Your task to perform on an android device: Clear the shopping cart on newegg. Search for "bose soundlink" on newegg, select the first entry, add it to the cart, then select checkout. Image 0: 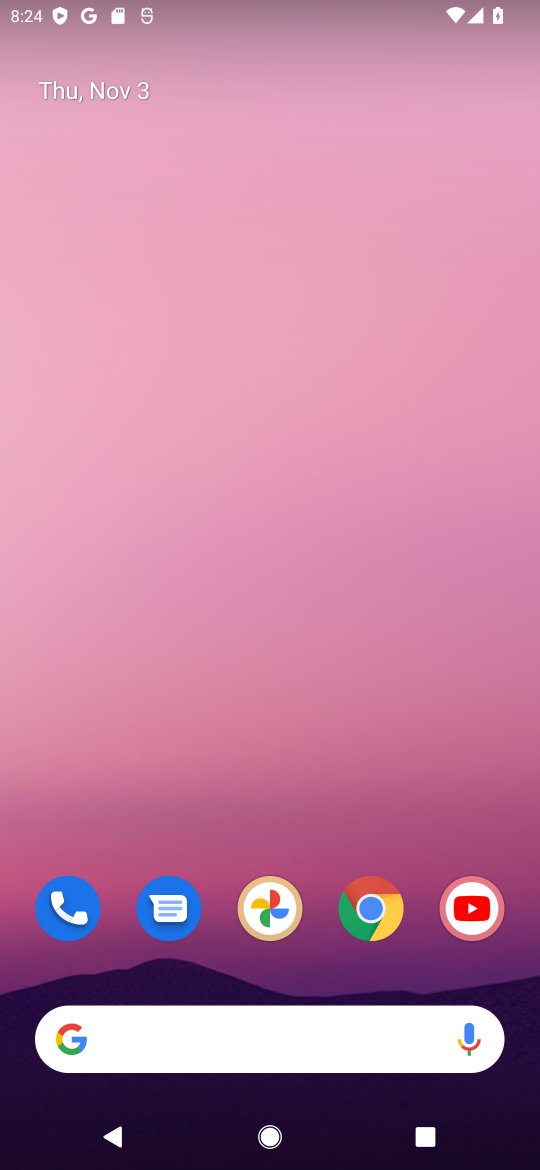
Step 0: click (382, 896)
Your task to perform on an android device: Clear the shopping cart on newegg. Search for "bose soundlink" on newegg, select the first entry, add it to the cart, then select checkout. Image 1: 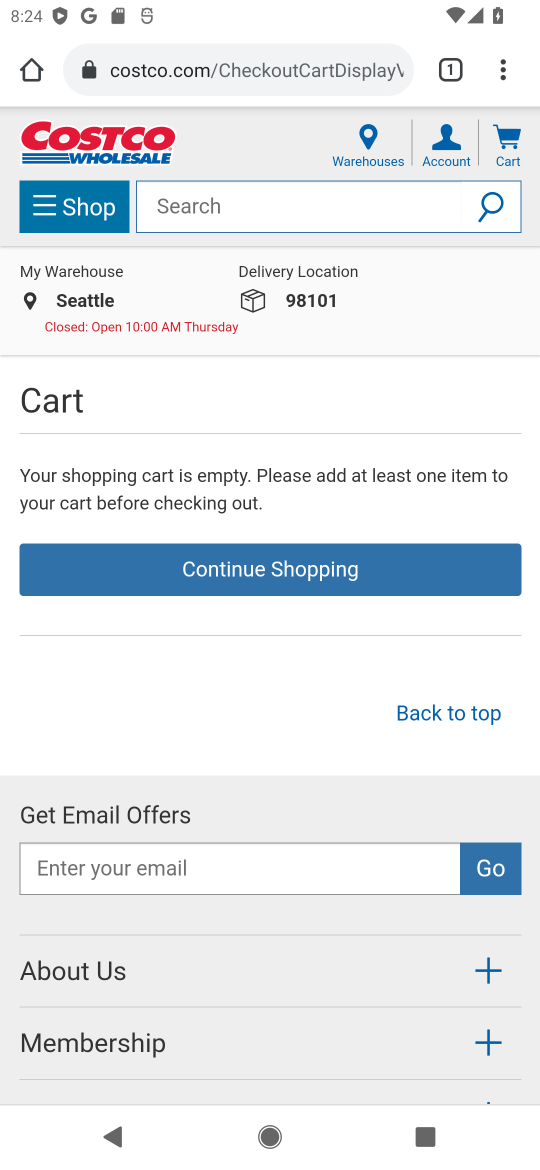
Step 1: click (27, 71)
Your task to perform on an android device: Clear the shopping cart on newegg. Search for "bose soundlink" on newegg, select the first entry, add it to the cart, then select checkout. Image 2: 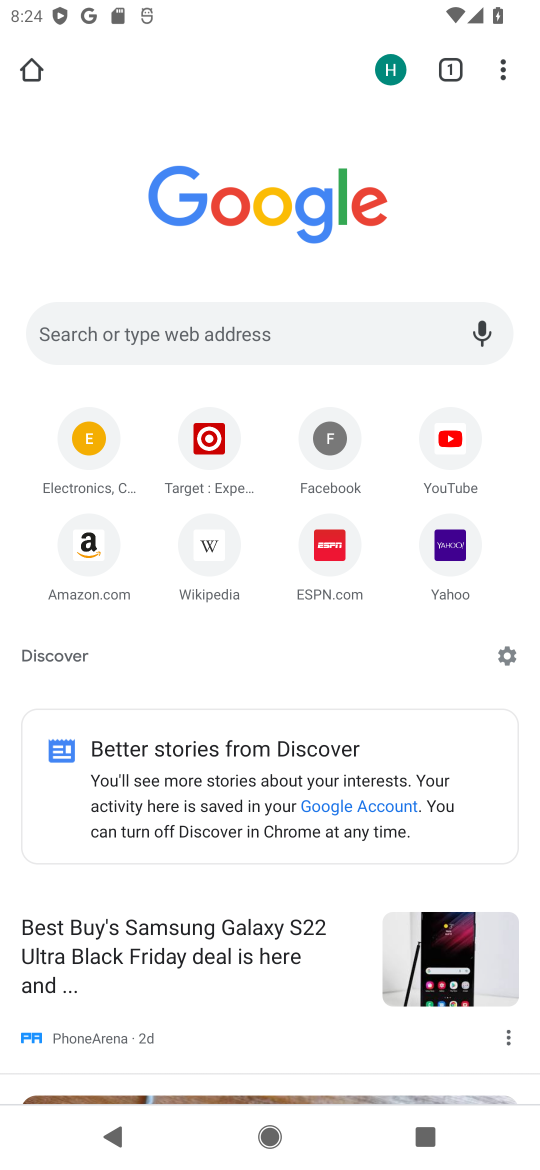
Step 2: click (233, 325)
Your task to perform on an android device: Clear the shopping cart on newegg. Search for "bose soundlink" on newegg, select the first entry, add it to the cart, then select checkout. Image 3: 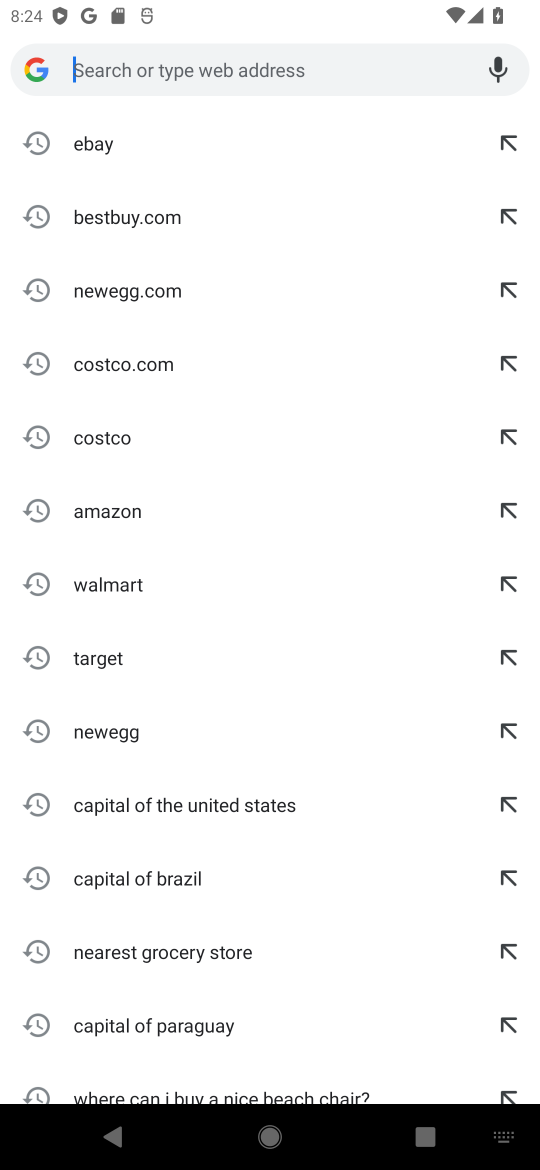
Step 3: click (159, 286)
Your task to perform on an android device: Clear the shopping cart on newegg. Search for "bose soundlink" on newegg, select the first entry, add it to the cart, then select checkout. Image 4: 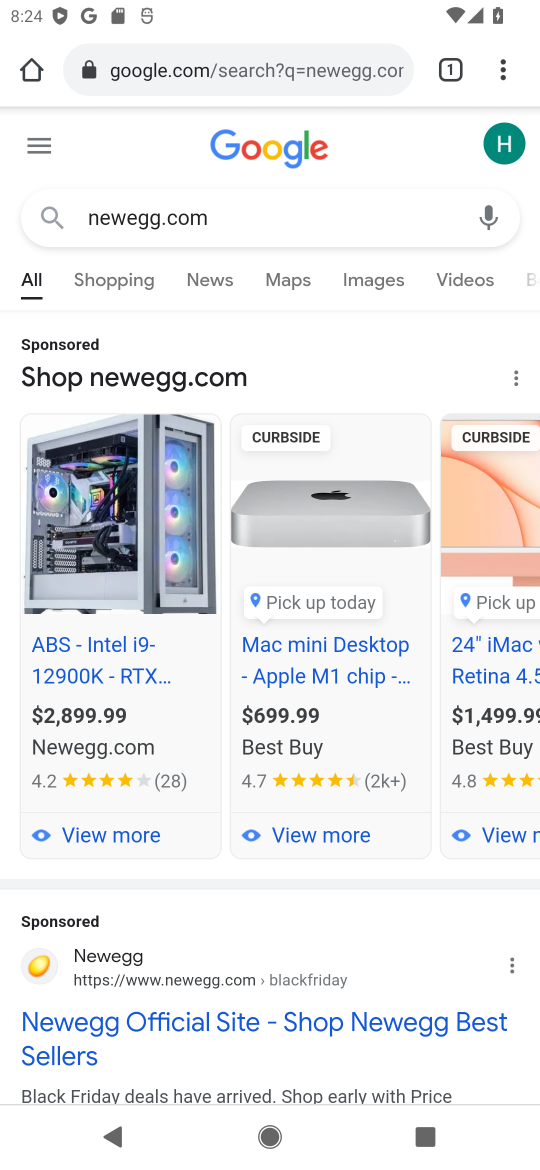
Step 4: click (210, 978)
Your task to perform on an android device: Clear the shopping cart on newegg. Search for "bose soundlink" on newegg, select the first entry, add it to the cart, then select checkout. Image 5: 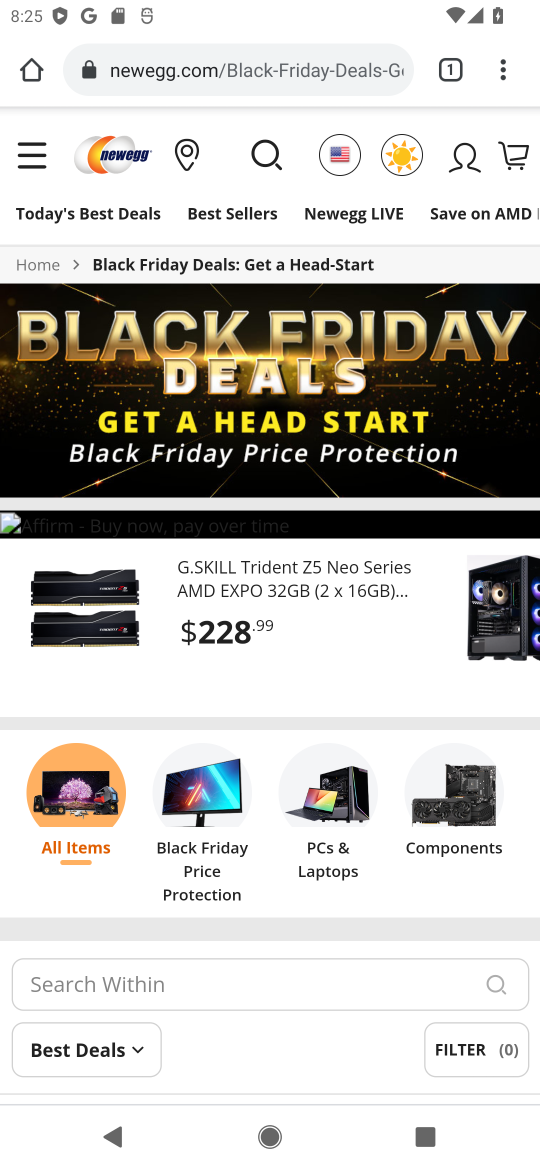
Step 5: click (511, 151)
Your task to perform on an android device: Clear the shopping cart on newegg. Search for "bose soundlink" on newegg, select the first entry, add it to the cart, then select checkout. Image 6: 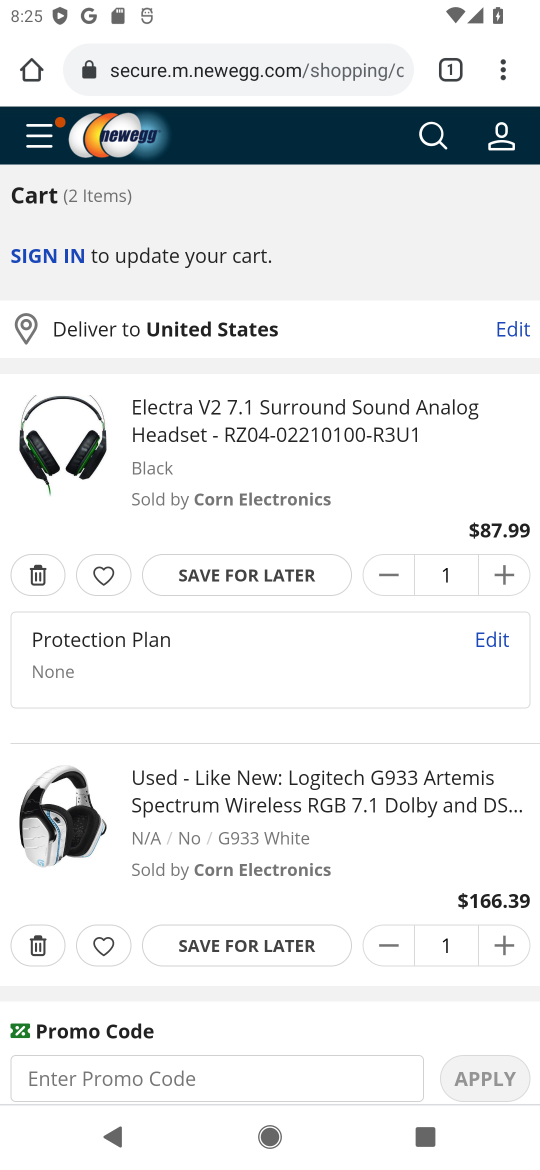
Step 6: click (34, 580)
Your task to perform on an android device: Clear the shopping cart on newegg. Search for "bose soundlink" on newegg, select the first entry, add it to the cart, then select checkout. Image 7: 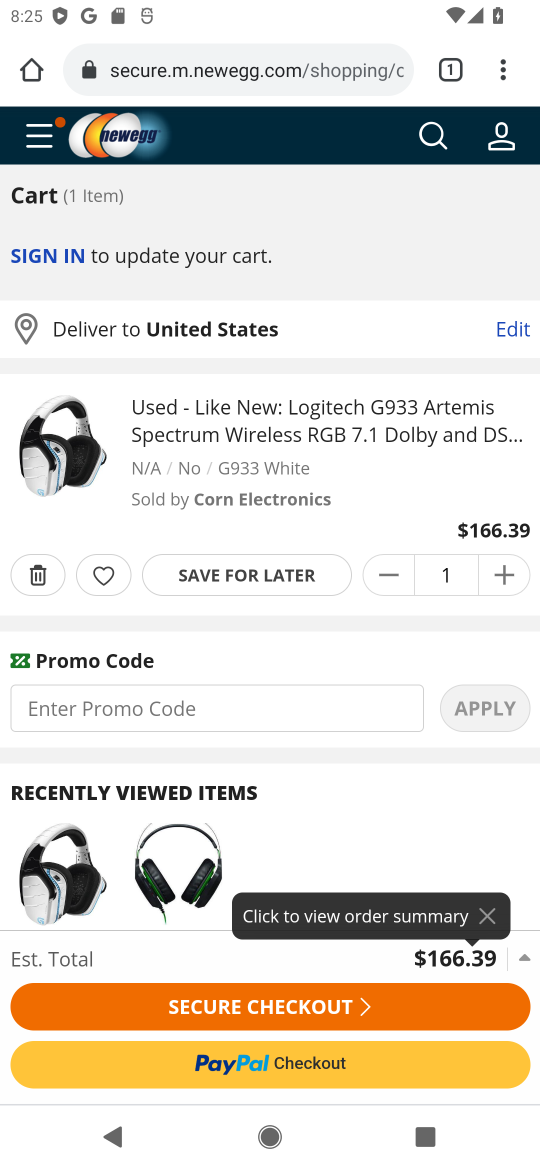
Step 7: click (34, 580)
Your task to perform on an android device: Clear the shopping cart on newegg. Search for "bose soundlink" on newegg, select the first entry, add it to the cart, then select checkout. Image 8: 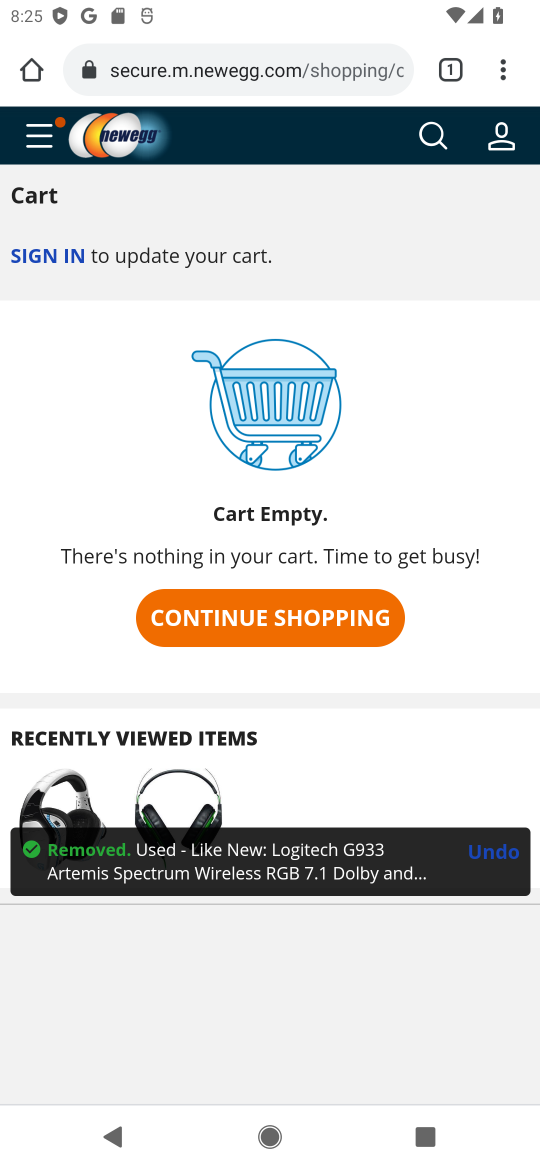
Step 8: click (432, 141)
Your task to perform on an android device: Clear the shopping cart on newegg. Search for "bose soundlink" on newegg, select the first entry, add it to the cart, then select checkout. Image 9: 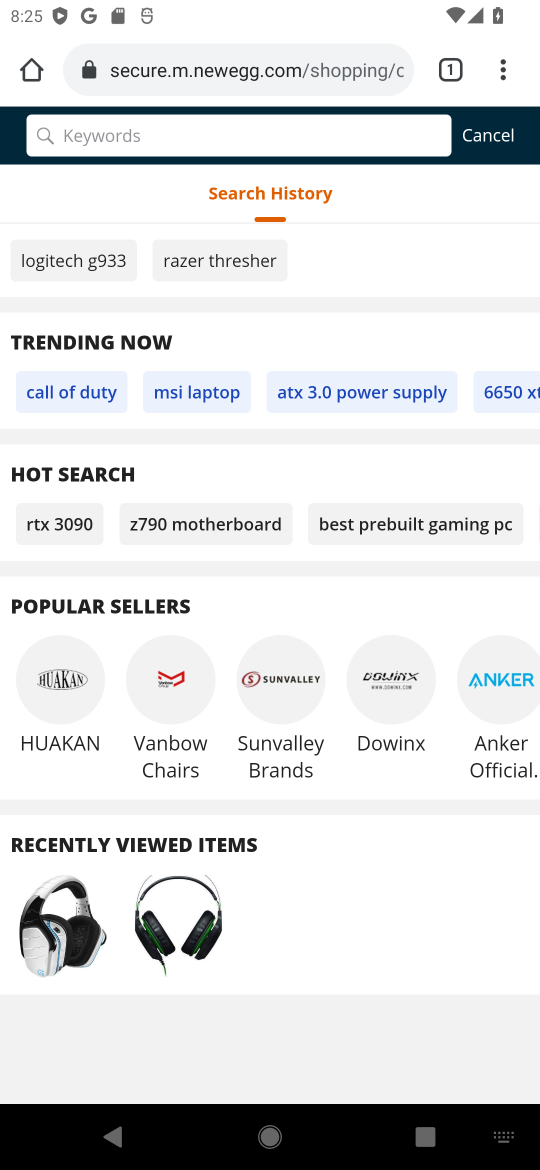
Step 9: click (357, 144)
Your task to perform on an android device: Clear the shopping cart on newegg. Search for "bose soundlink" on newegg, select the first entry, add it to the cart, then select checkout. Image 10: 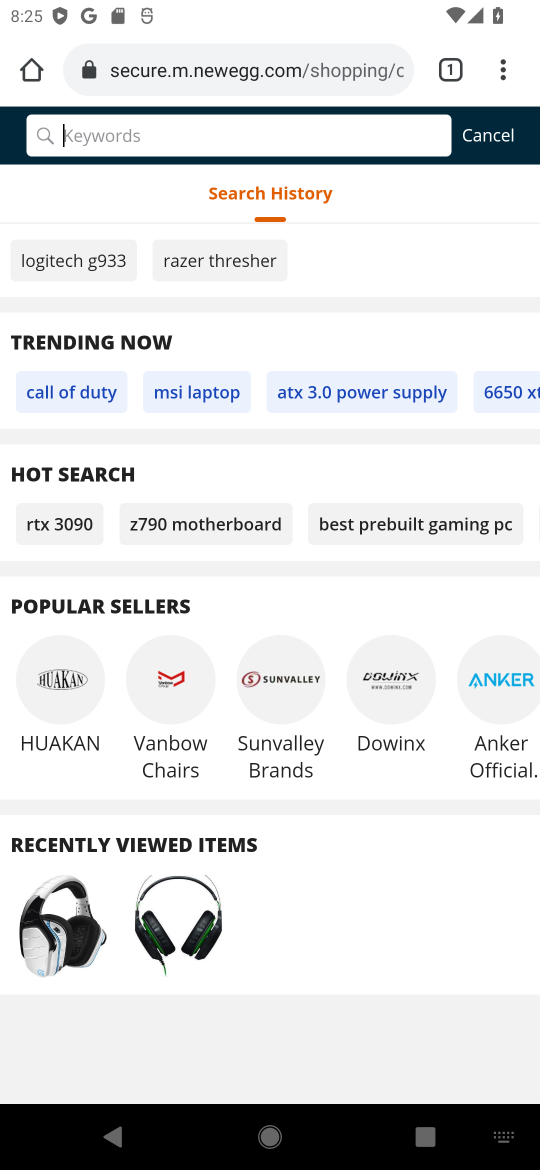
Step 10: type "bose soundlink"
Your task to perform on an android device: Clear the shopping cart on newegg. Search for "bose soundlink" on newegg, select the first entry, add it to the cart, then select checkout. Image 11: 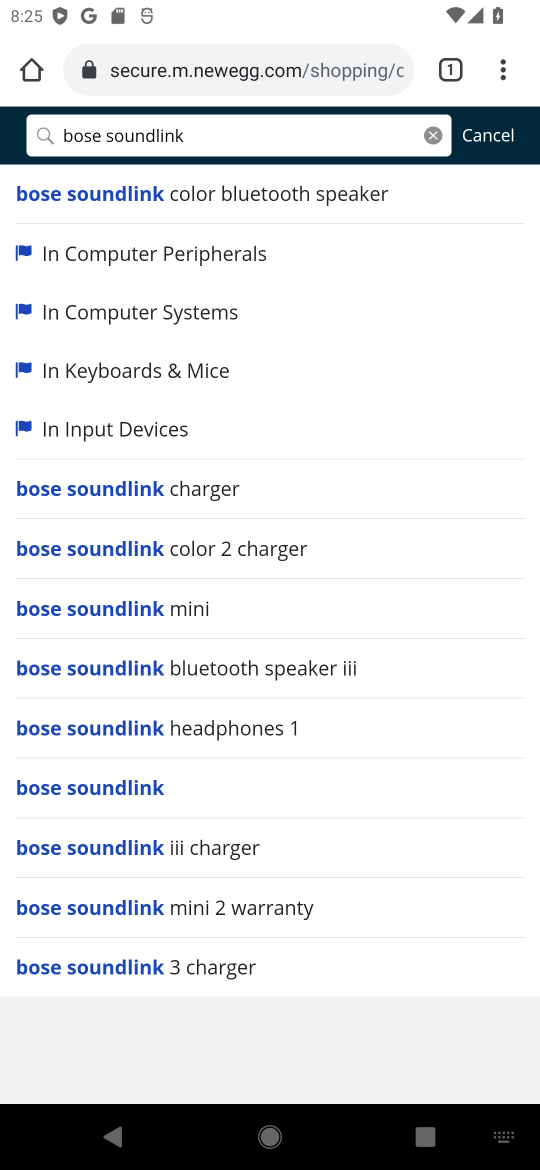
Step 11: click (99, 782)
Your task to perform on an android device: Clear the shopping cart on newegg. Search for "bose soundlink" on newegg, select the first entry, add it to the cart, then select checkout. Image 12: 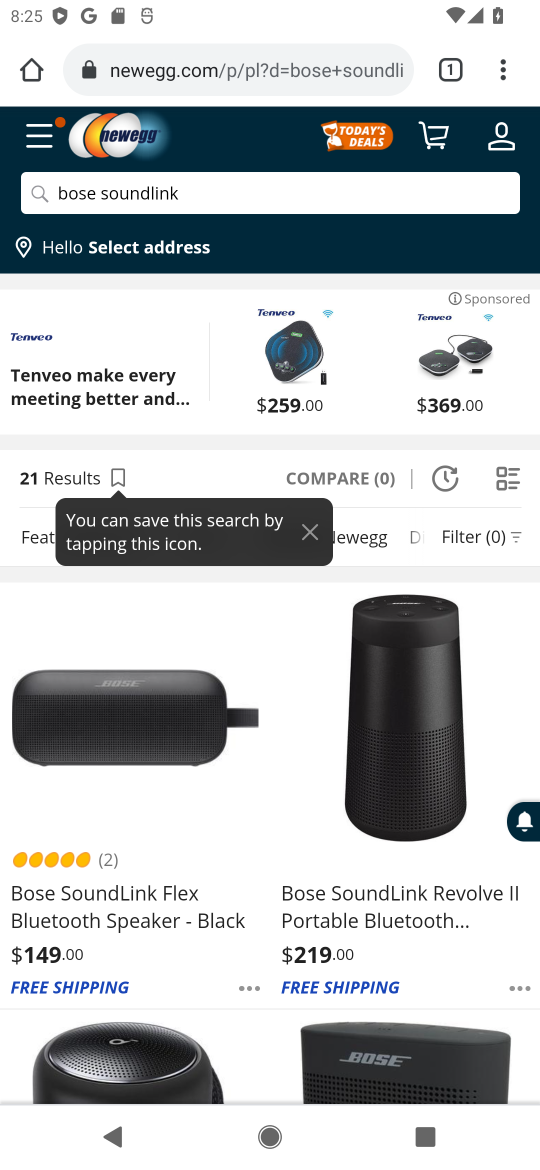
Step 12: click (141, 734)
Your task to perform on an android device: Clear the shopping cart on newegg. Search for "bose soundlink" on newegg, select the first entry, add it to the cart, then select checkout. Image 13: 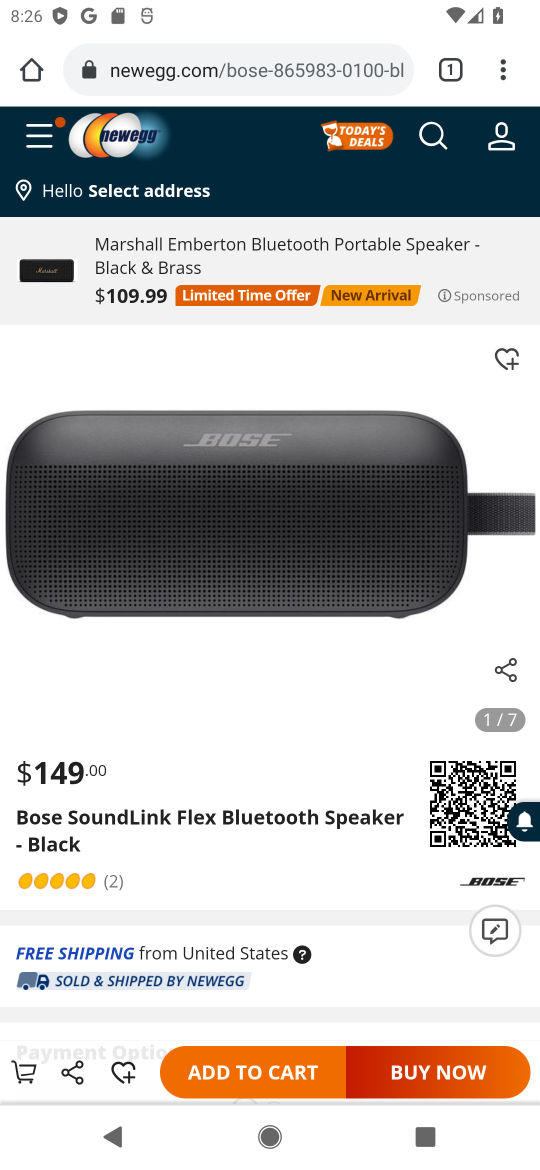
Step 13: click (260, 1067)
Your task to perform on an android device: Clear the shopping cart on newegg. Search for "bose soundlink" on newegg, select the first entry, add it to the cart, then select checkout. Image 14: 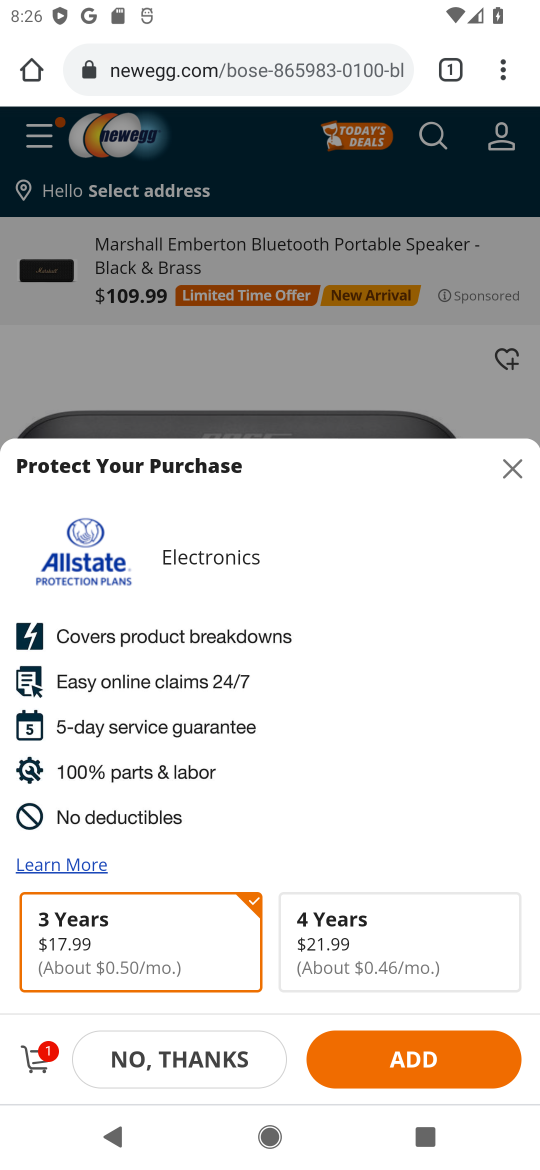
Step 14: click (523, 464)
Your task to perform on an android device: Clear the shopping cart on newegg. Search for "bose soundlink" on newegg, select the first entry, add it to the cart, then select checkout. Image 15: 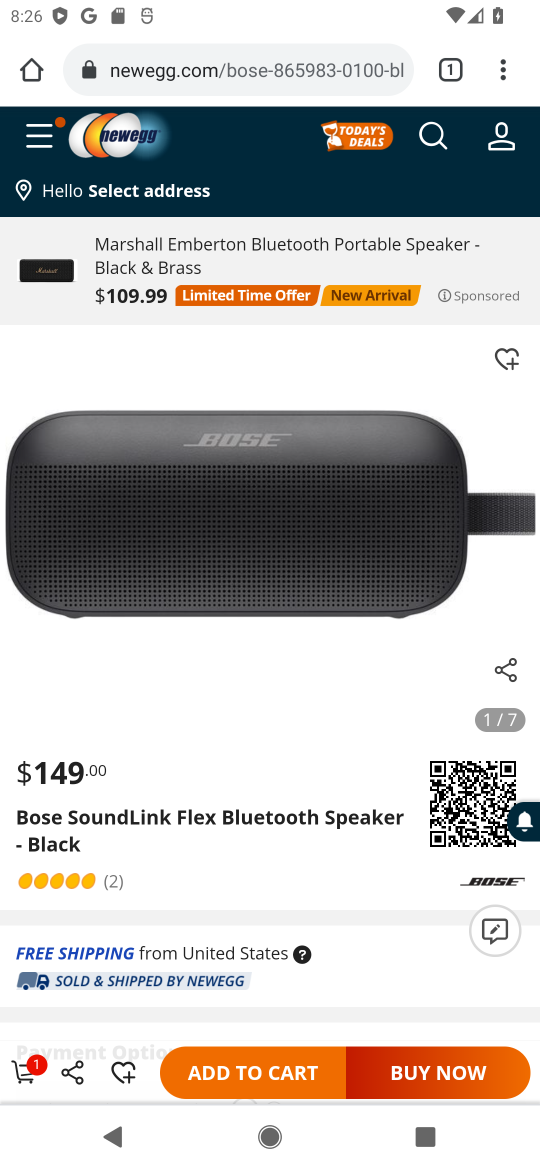
Step 15: click (30, 1077)
Your task to perform on an android device: Clear the shopping cart on newegg. Search for "bose soundlink" on newegg, select the first entry, add it to the cart, then select checkout. Image 16: 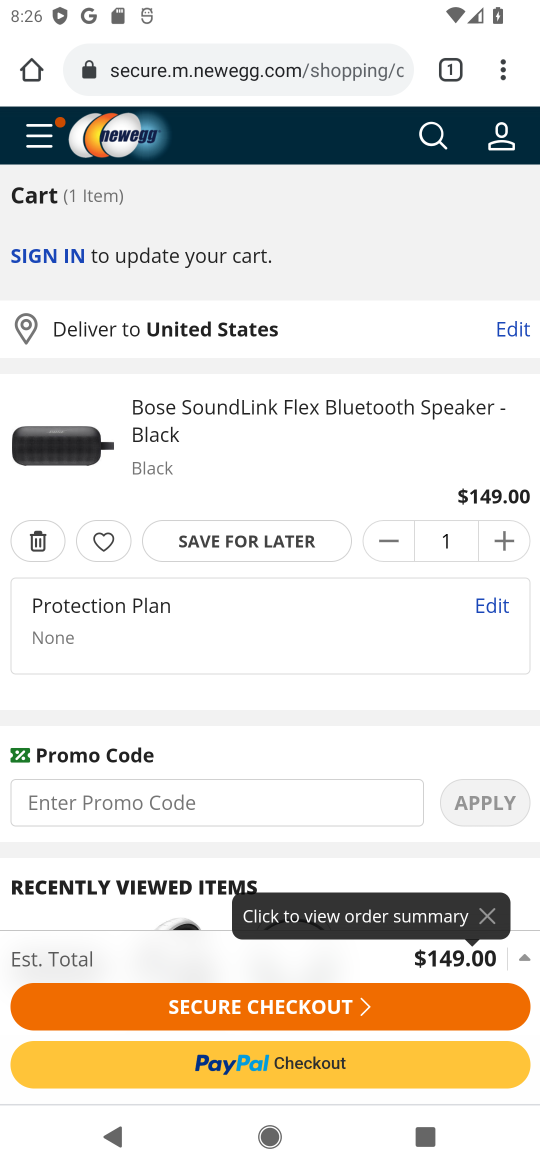
Step 16: click (292, 999)
Your task to perform on an android device: Clear the shopping cart on newegg. Search for "bose soundlink" on newegg, select the first entry, add it to the cart, then select checkout. Image 17: 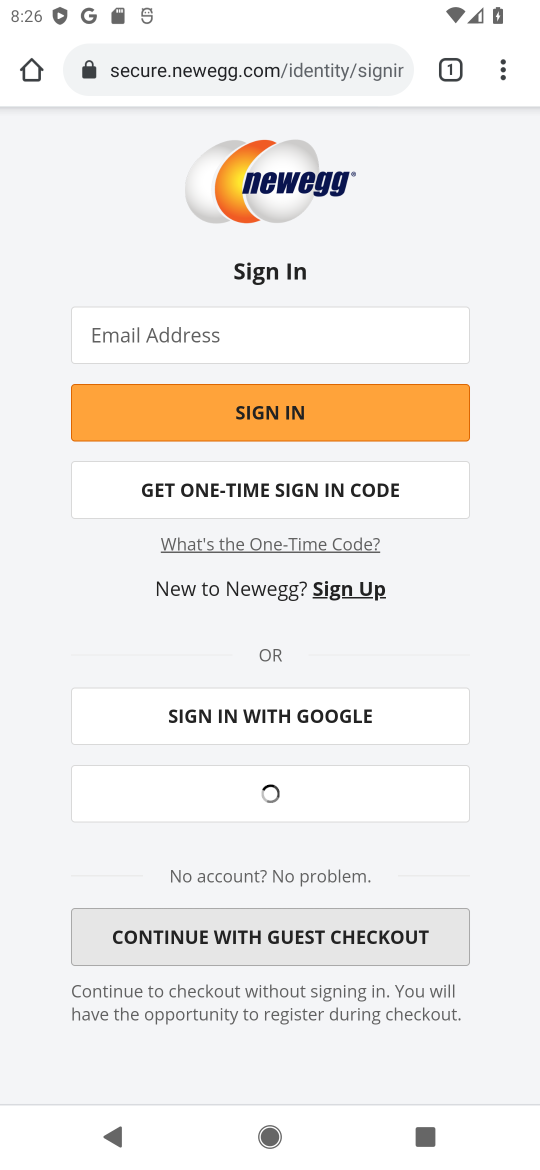
Step 17: task complete